Your task to perform on an android device: When is my next appointment? Image 0: 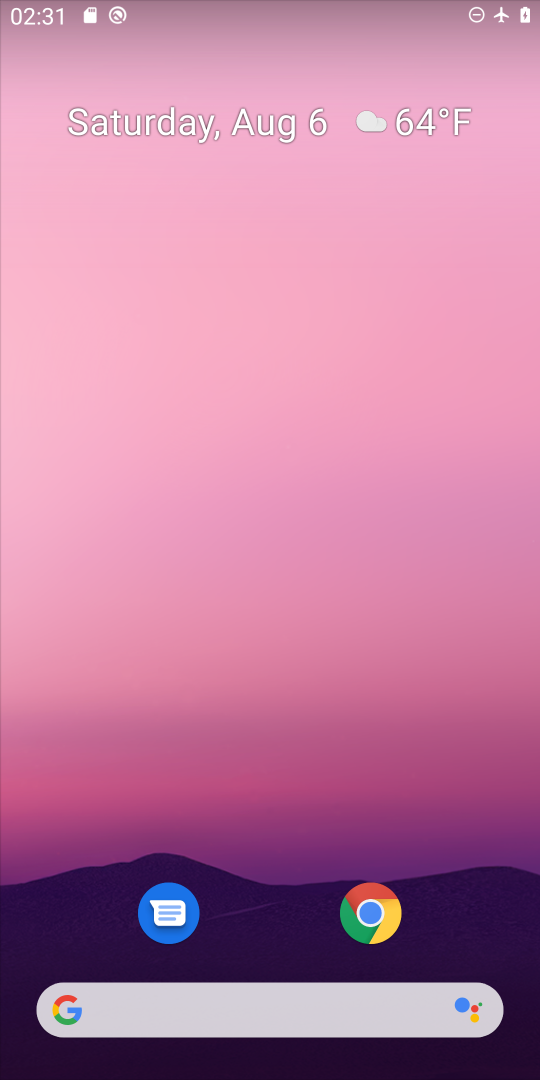
Step 0: press home button
Your task to perform on an android device: When is my next appointment? Image 1: 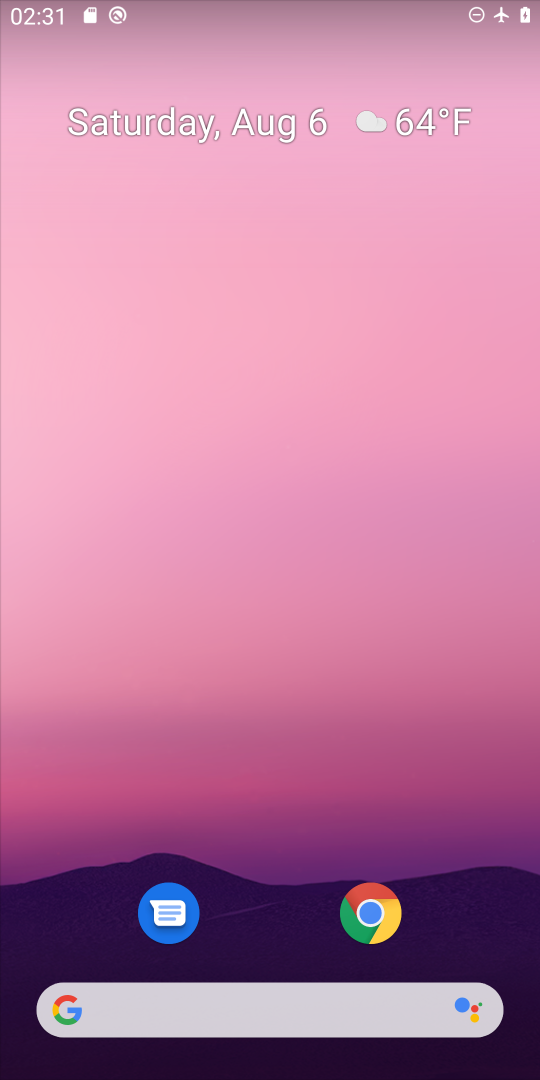
Step 1: drag from (468, 937) to (438, 291)
Your task to perform on an android device: When is my next appointment? Image 2: 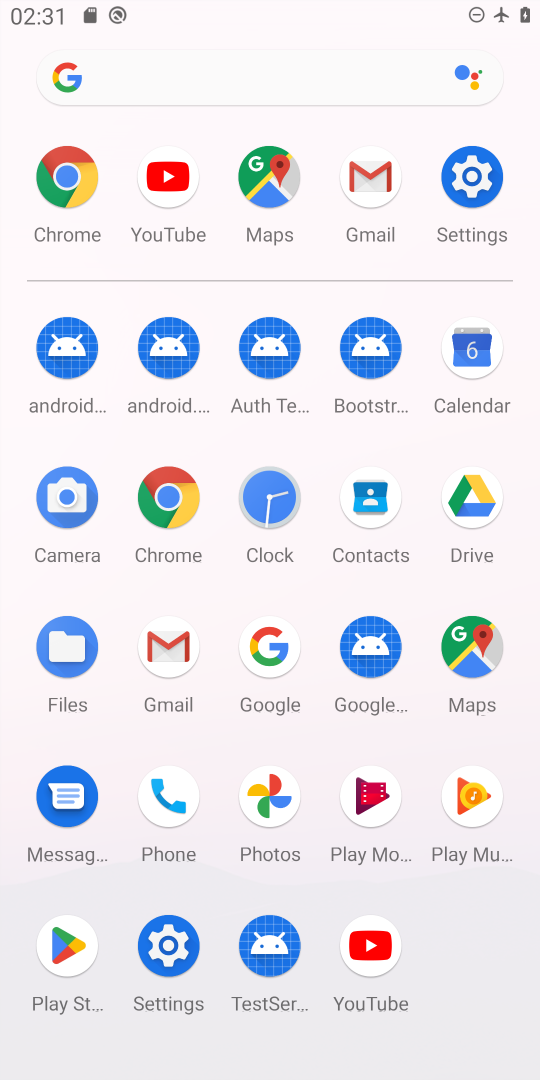
Step 2: click (461, 347)
Your task to perform on an android device: When is my next appointment? Image 3: 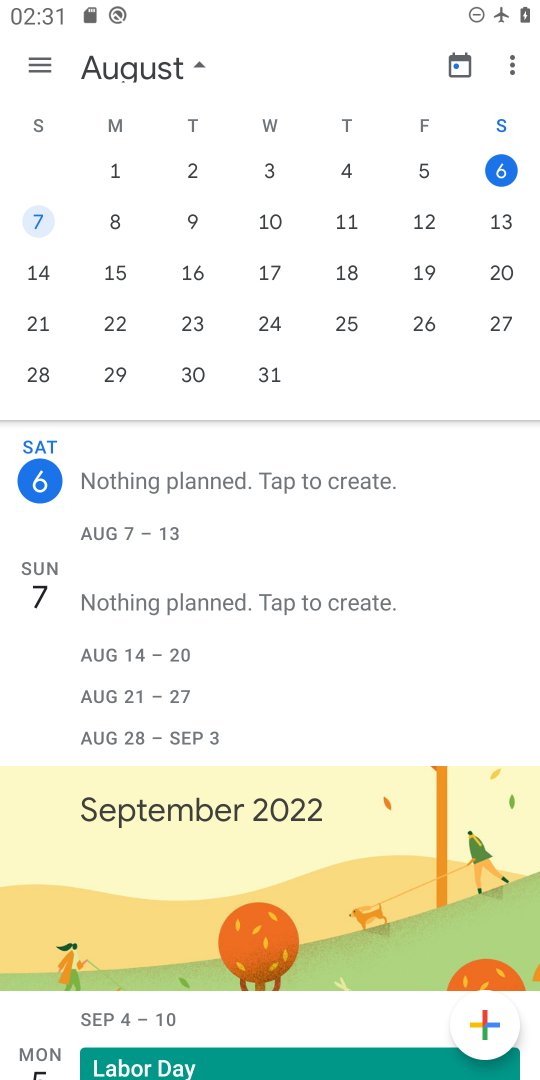
Step 3: task complete